Your task to perform on an android device: toggle improve location accuracy Image 0: 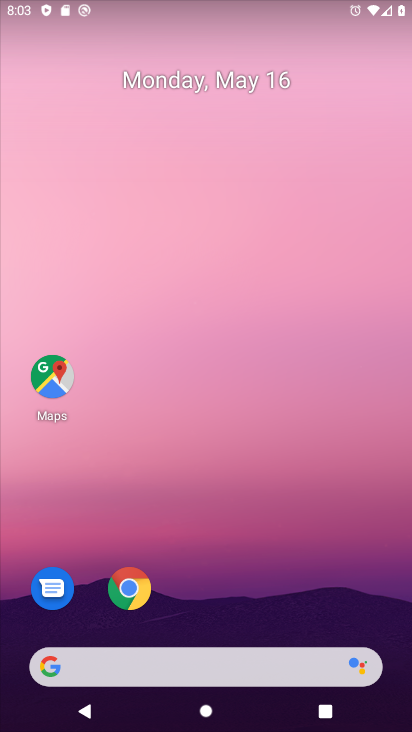
Step 0: drag from (307, 633) to (171, 168)
Your task to perform on an android device: toggle improve location accuracy Image 1: 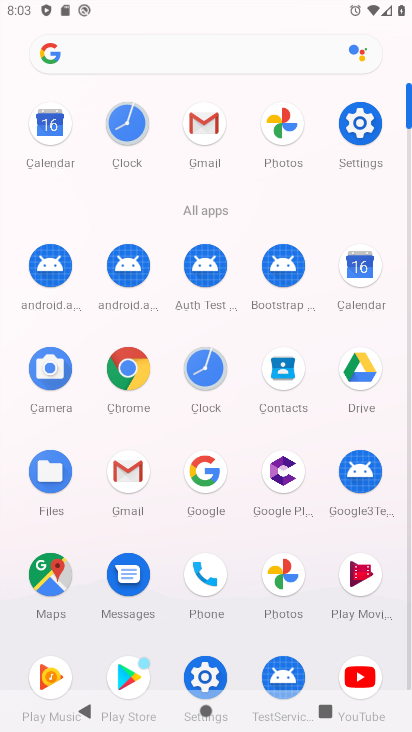
Step 1: click (117, 363)
Your task to perform on an android device: toggle improve location accuracy Image 2: 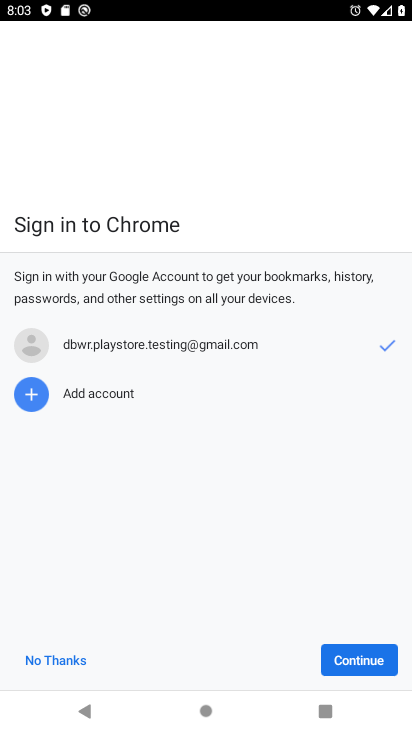
Step 2: click (363, 660)
Your task to perform on an android device: toggle improve location accuracy Image 3: 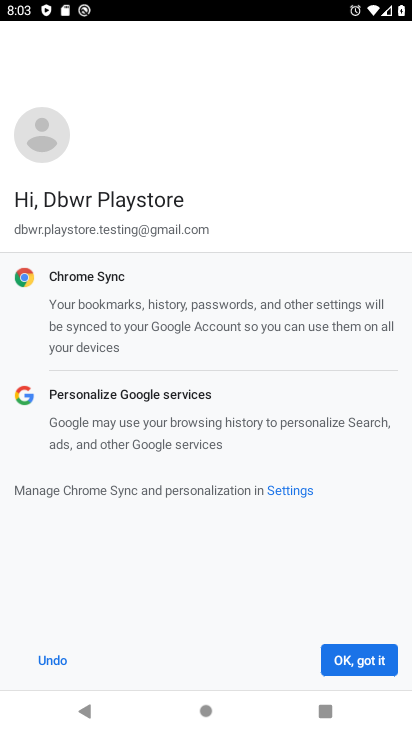
Step 3: click (358, 653)
Your task to perform on an android device: toggle improve location accuracy Image 4: 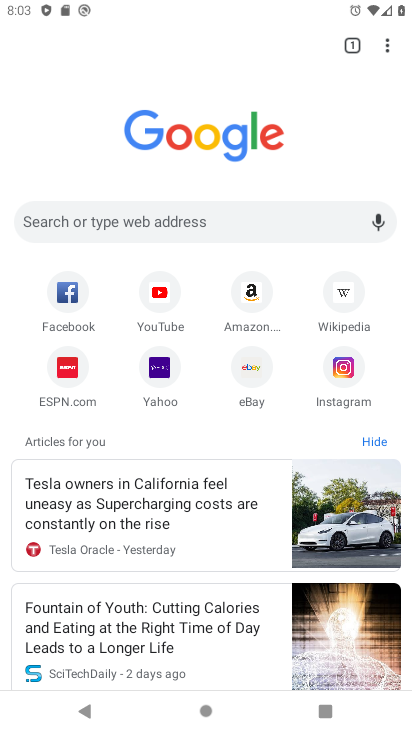
Step 4: press back button
Your task to perform on an android device: toggle improve location accuracy Image 5: 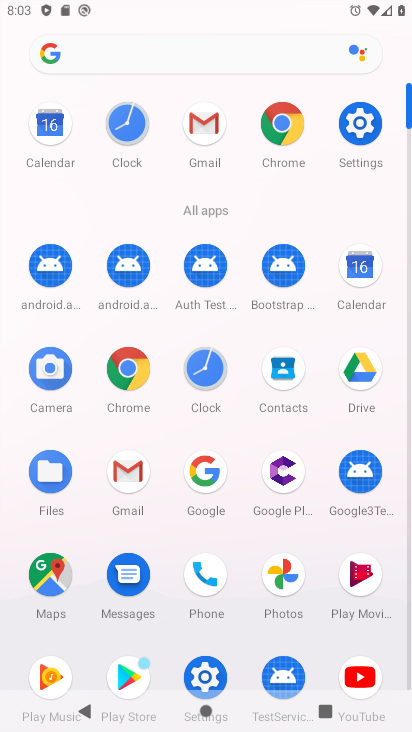
Step 5: click (354, 116)
Your task to perform on an android device: toggle improve location accuracy Image 6: 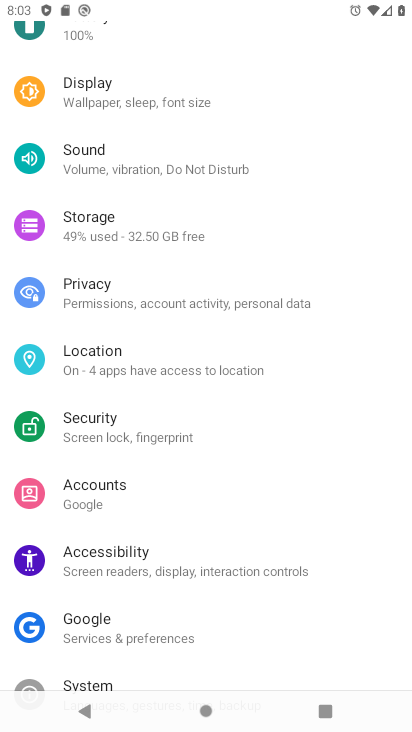
Step 6: click (96, 359)
Your task to perform on an android device: toggle improve location accuracy Image 7: 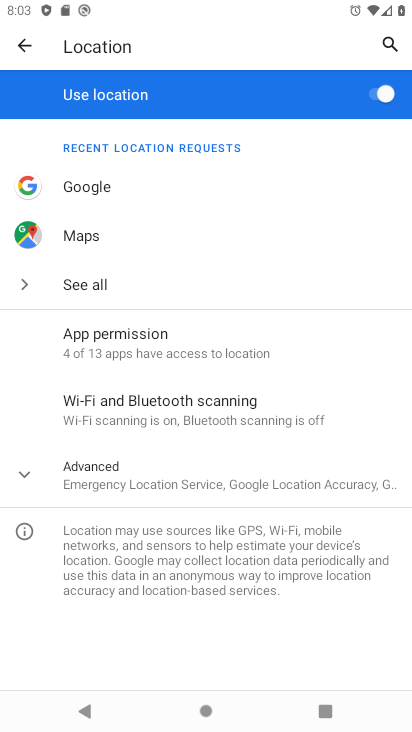
Step 7: click (115, 478)
Your task to perform on an android device: toggle improve location accuracy Image 8: 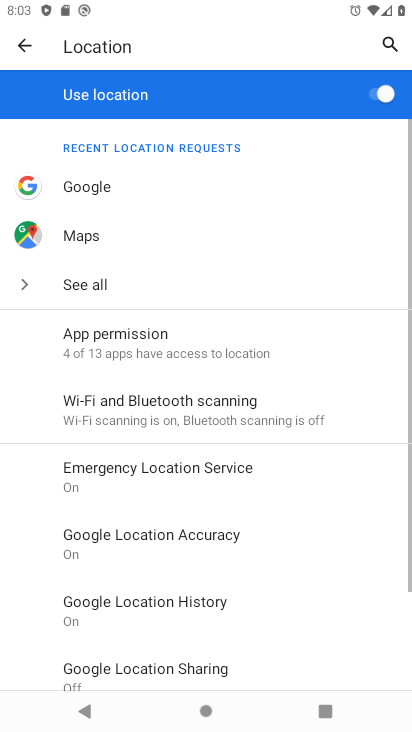
Step 8: drag from (203, 626) to (164, 304)
Your task to perform on an android device: toggle improve location accuracy Image 9: 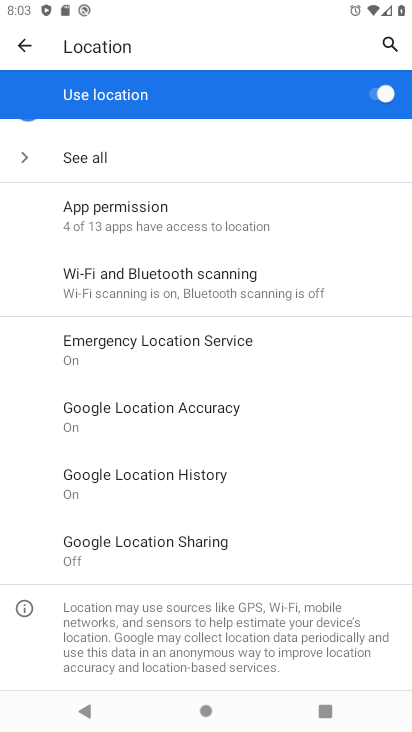
Step 9: click (153, 403)
Your task to perform on an android device: toggle improve location accuracy Image 10: 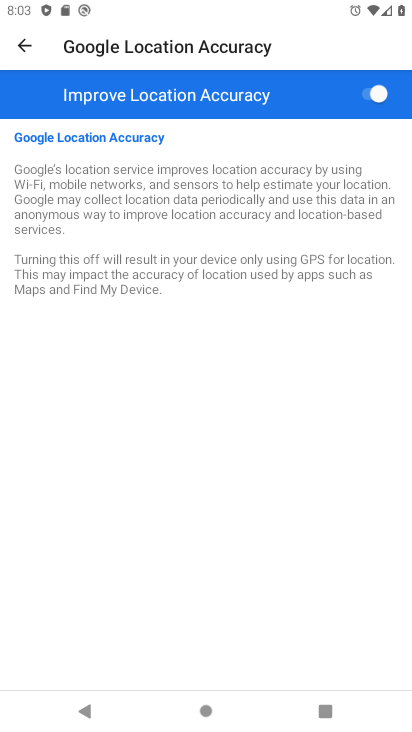
Step 10: click (368, 85)
Your task to perform on an android device: toggle improve location accuracy Image 11: 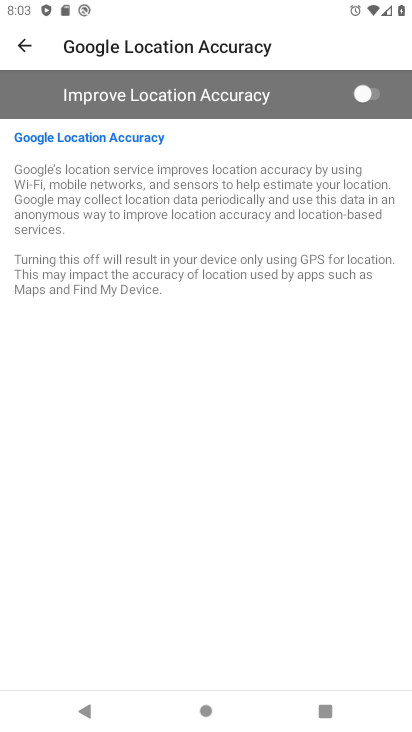
Step 11: task complete